Your task to perform on an android device: Turn off the flashlight Image 0: 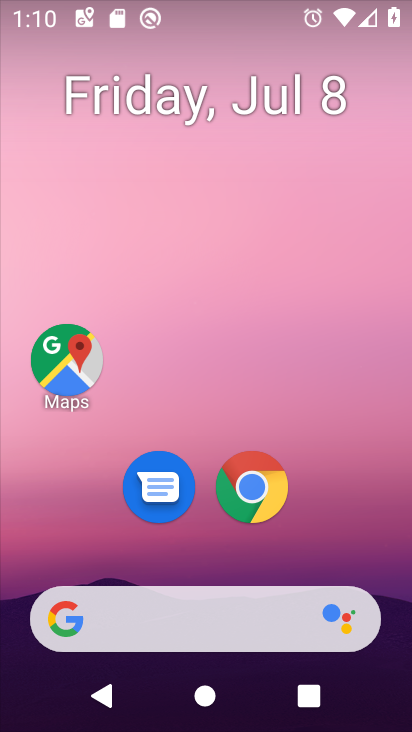
Step 0: drag from (252, 8) to (210, 396)
Your task to perform on an android device: Turn off the flashlight Image 1: 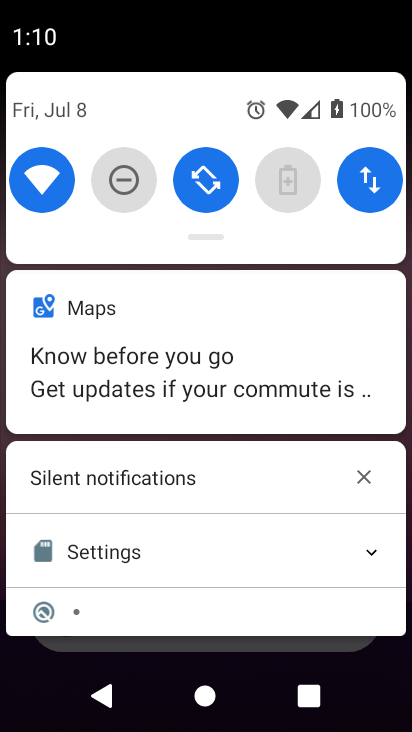
Step 1: drag from (230, 108) to (245, 378)
Your task to perform on an android device: Turn off the flashlight Image 2: 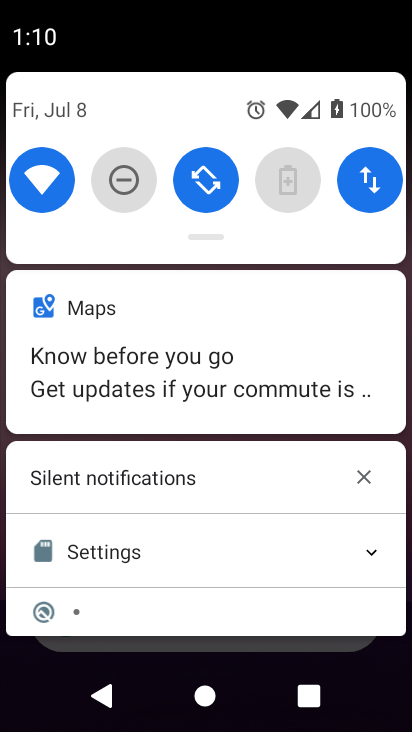
Step 2: drag from (164, 140) to (169, 462)
Your task to perform on an android device: Turn off the flashlight Image 3: 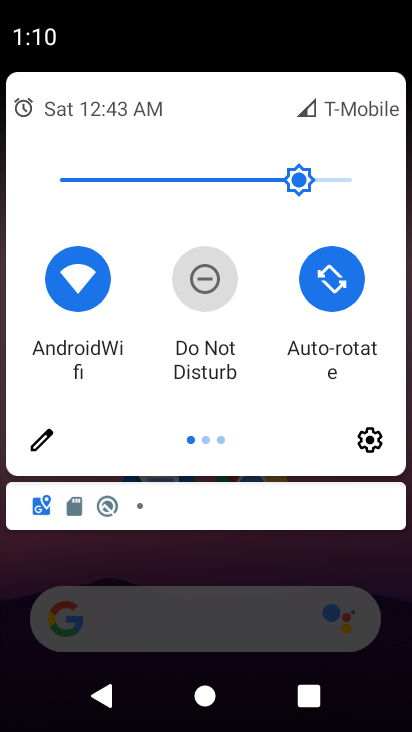
Step 3: click (34, 434)
Your task to perform on an android device: Turn off the flashlight Image 4: 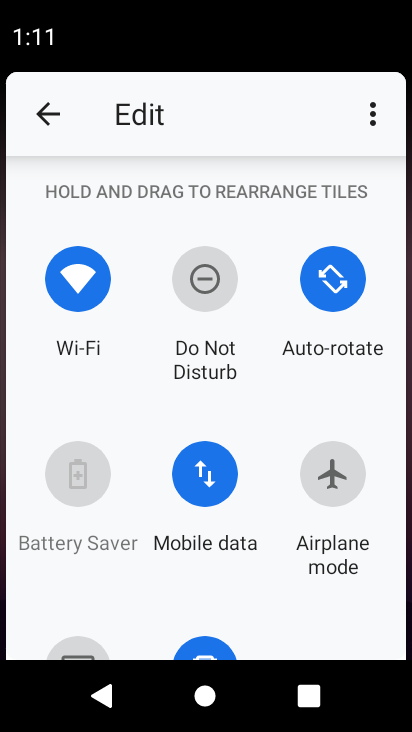
Step 4: task complete